Your task to perform on an android device: search for starred emails in the gmail app Image 0: 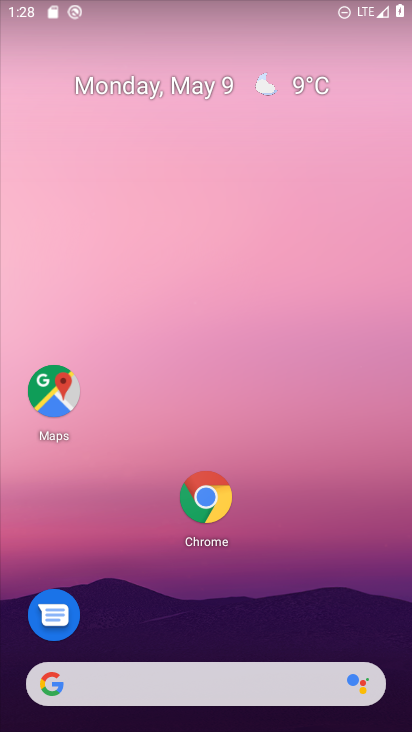
Step 0: drag from (337, 590) to (292, 77)
Your task to perform on an android device: search for starred emails in the gmail app Image 1: 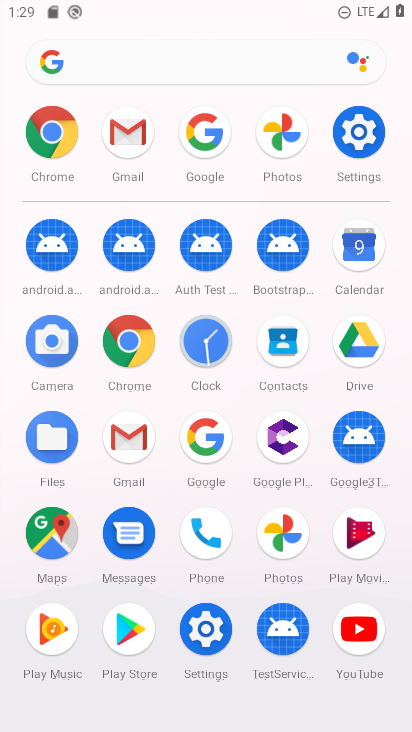
Step 1: click (113, 428)
Your task to perform on an android device: search for starred emails in the gmail app Image 2: 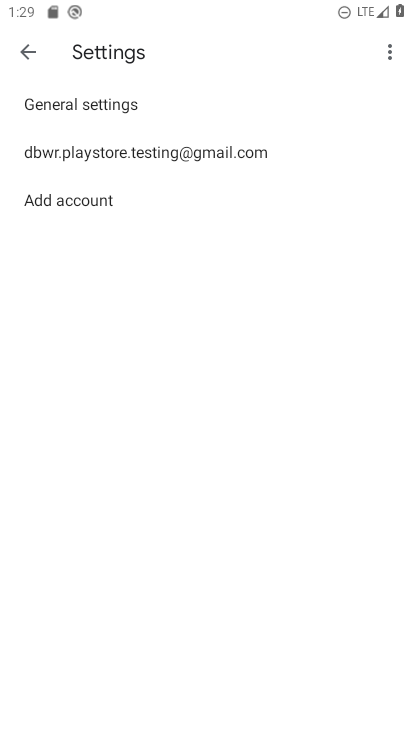
Step 2: click (21, 47)
Your task to perform on an android device: search for starred emails in the gmail app Image 3: 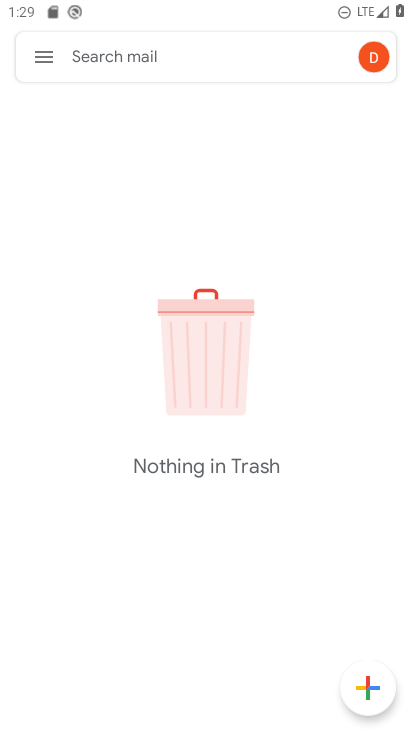
Step 3: click (41, 44)
Your task to perform on an android device: search for starred emails in the gmail app Image 4: 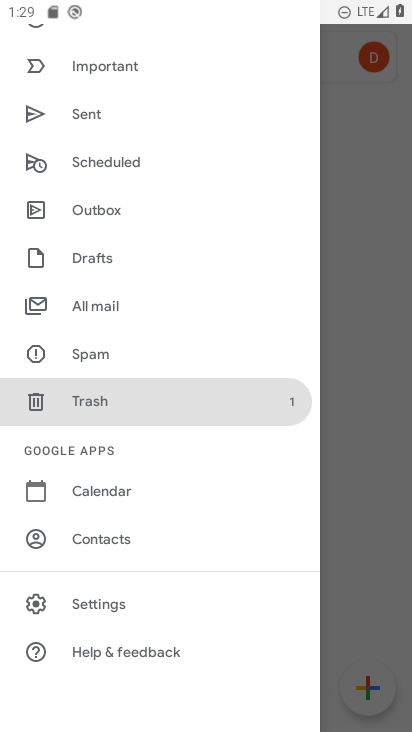
Step 4: drag from (102, 118) to (109, 401)
Your task to perform on an android device: search for starred emails in the gmail app Image 5: 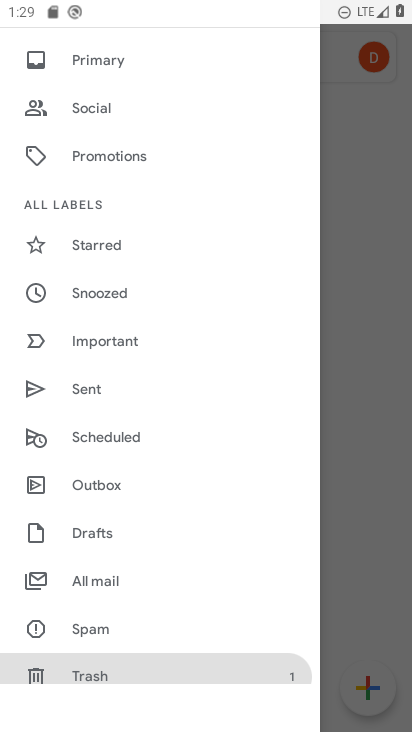
Step 5: click (128, 245)
Your task to perform on an android device: search for starred emails in the gmail app Image 6: 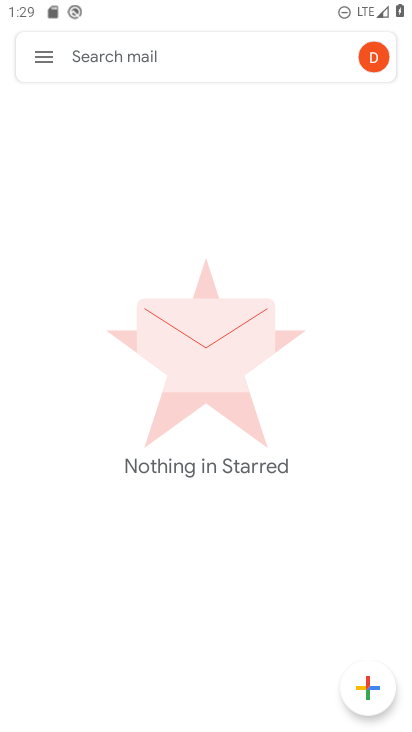
Step 6: task complete